Your task to perform on an android device: choose inbox layout in the gmail app Image 0: 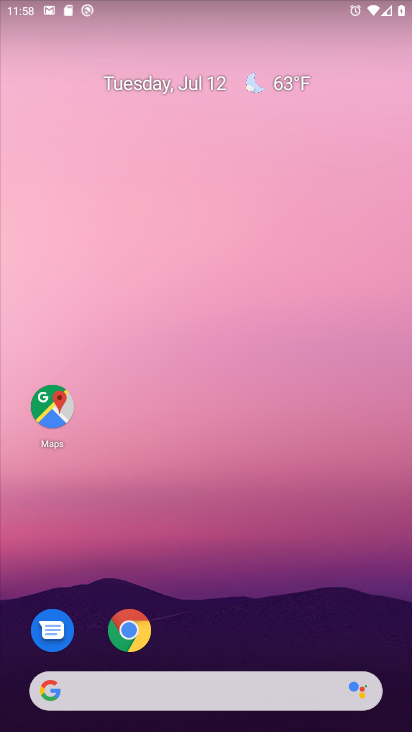
Step 0: drag from (254, 668) to (306, 72)
Your task to perform on an android device: choose inbox layout in the gmail app Image 1: 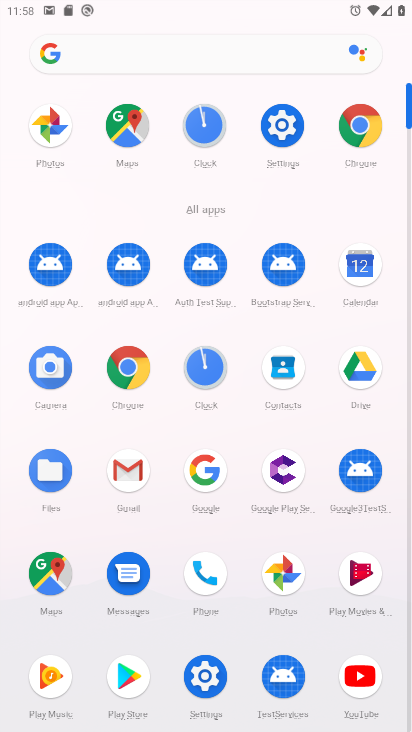
Step 1: click (130, 473)
Your task to perform on an android device: choose inbox layout in the gmail app Image 2: 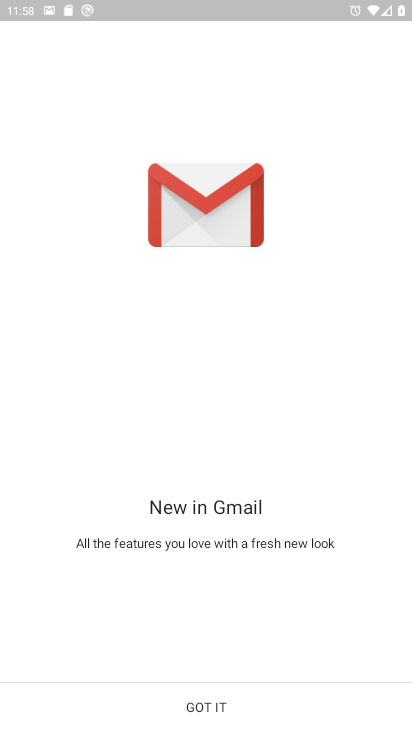
Step 2: click (212, 711)
Your task to perform on an android device: choose inbox layout in the gmail app Image 3: 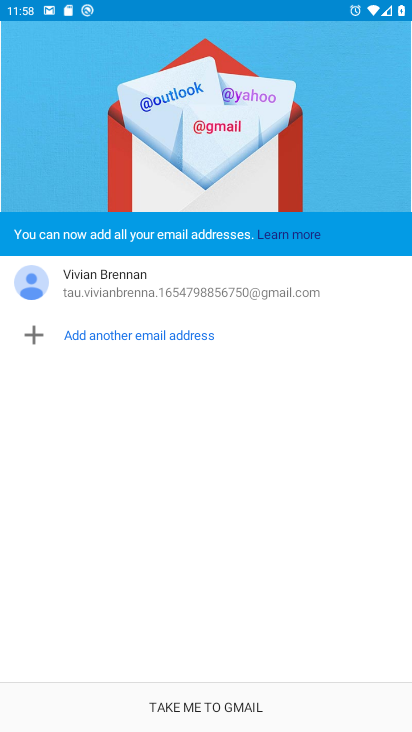
Step 3: click (212, 711)
Your task to perform on an android device: choose inbox layout in the gmail app Image 4: 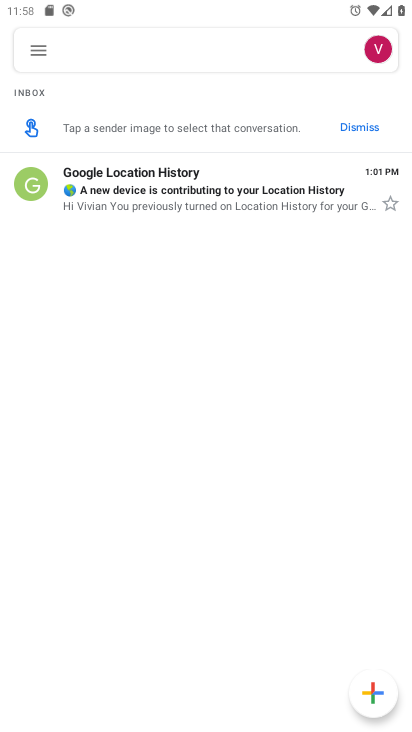
Step 4: click (37, 55)
Your task to perform on an android device: choose inbox layout in the gmail app Image 5: 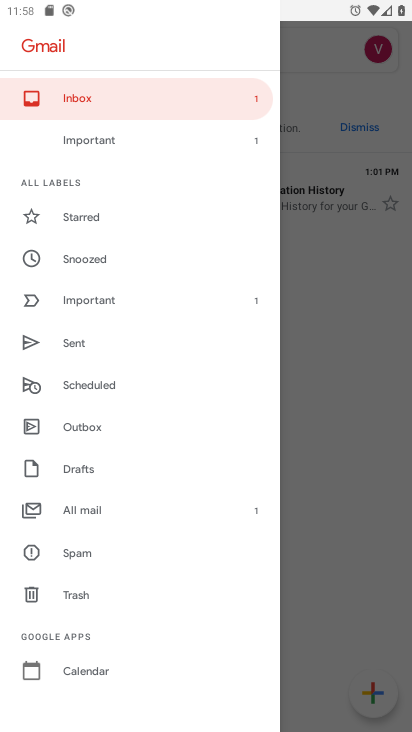
Step 5: drag from (99, 643) to (105, 34)
Your task to perform on an android device: choose inbox layout in the gmail app Image 6: 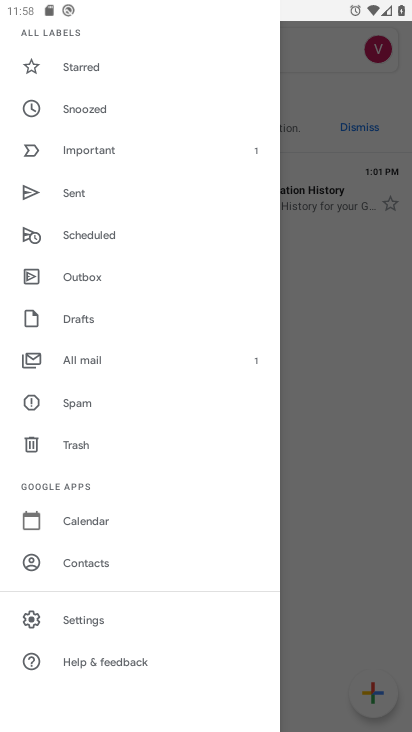
Step 6: click (96, 621)
Your task to perform on an android device: choose inbox layout in the gmail app Image 7: 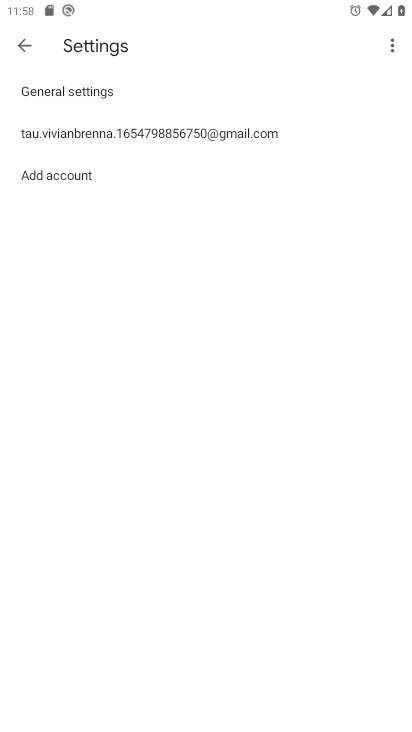
Step 7: click (130, 135)
Your task to perform on an android device: choose inbox layout in the gmail app Image 8: 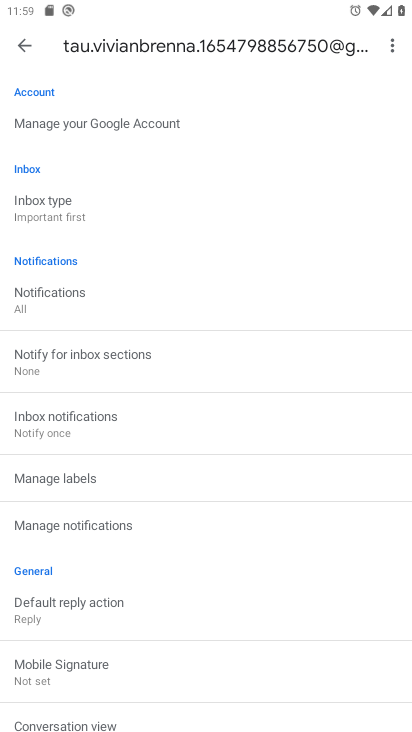
Step 8: click (50, 212)
Your task to perform on an android device: choose inbox layout in the gmail app Image 9: 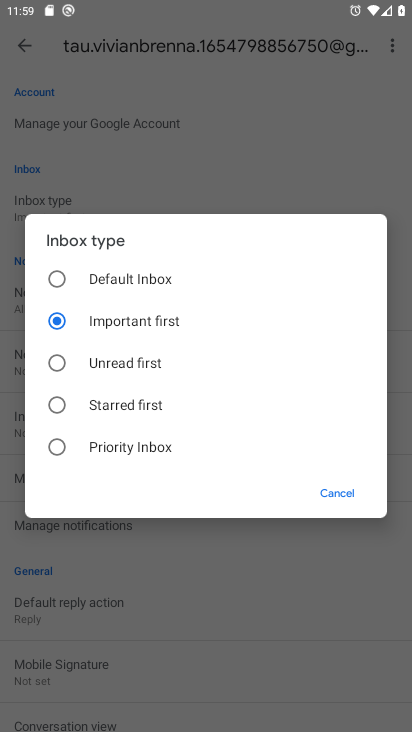
Step 9: click (100, 280)
Your task to perform on an android device: choose inbox layout in the gmail app Image 10: 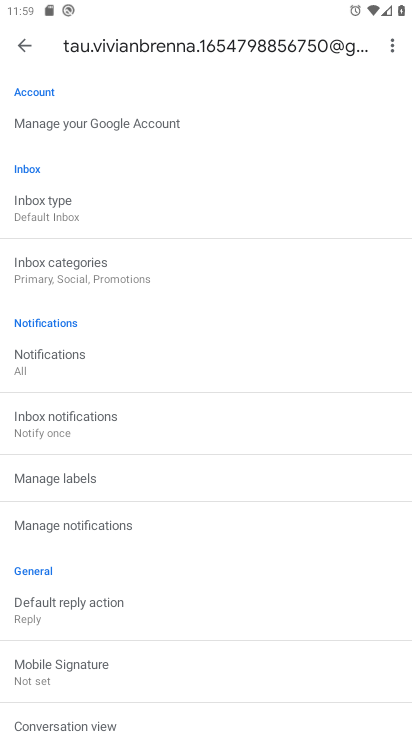
Step 10: task complete